Your task to perform on an android device: turn on location history Image 0: 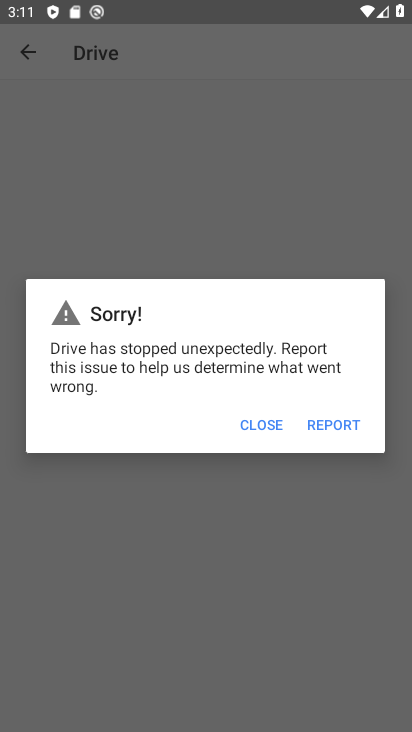
Step 0: press home button
Your task to perform on an android device: turn on location history Image 1: 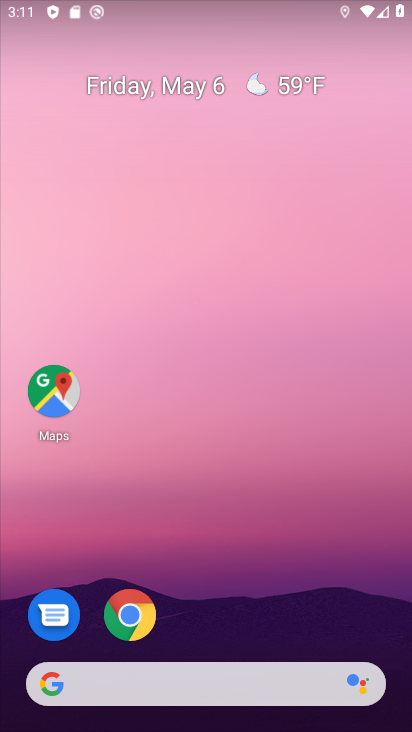
Step 1: click (45, 399)
Your task to perform on an android device: turn on location history Image 2: 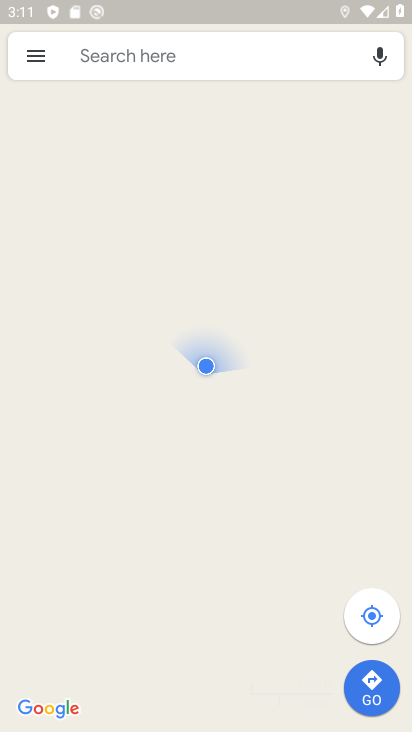
Step 2: click (30, 55)
Your task to perform on an android device: turn on location history Image 3: 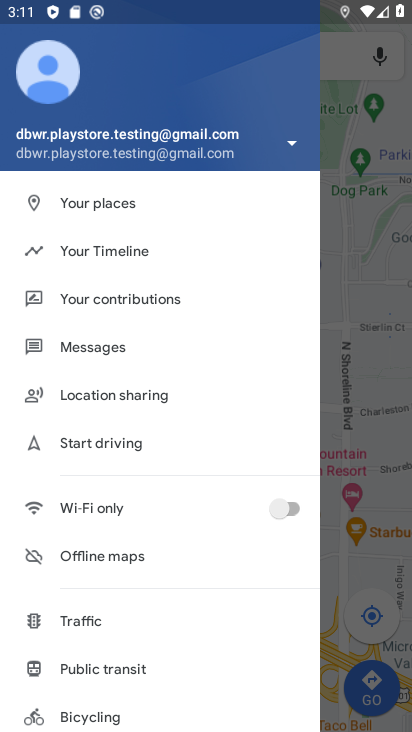
Step 3: click (94, 262)
Your task to perform on an android device: turn on location history Image 4: 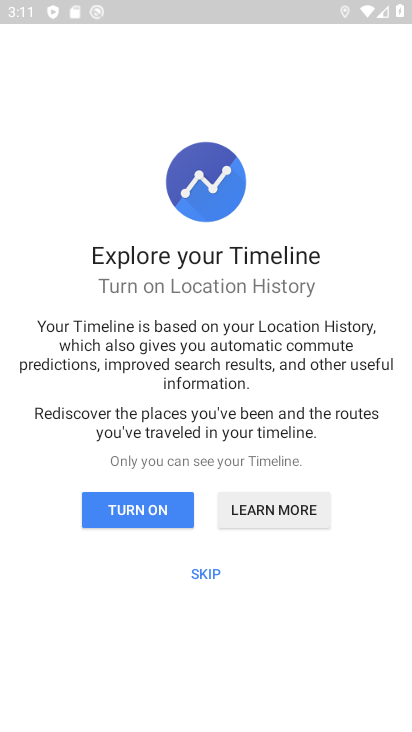
Step 4: click (200, 577)
Your task to perform on an android device: turn on location history Image 5: 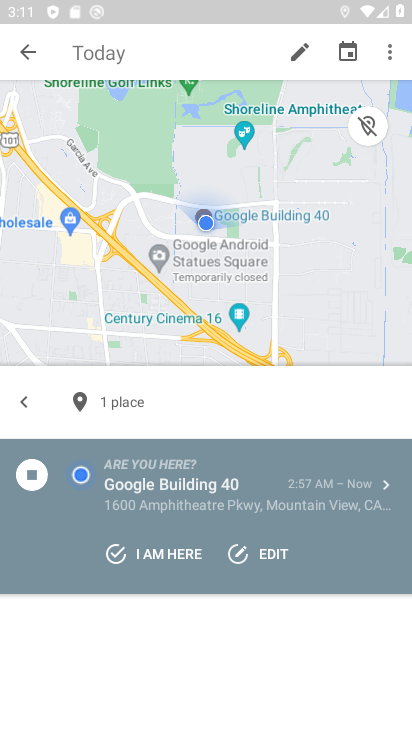
Step 5: click (393, 51)
Your task to perform on an android device: turn on location history Image 6: 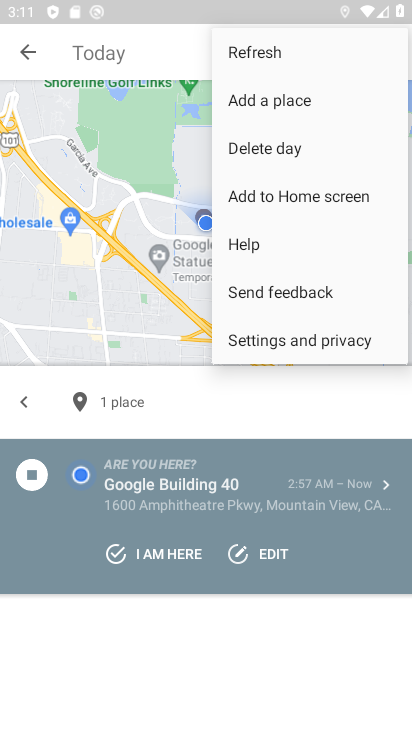
Step 6: click (273, 341)
Your task to perform on an android device: turn on location history Image 7: 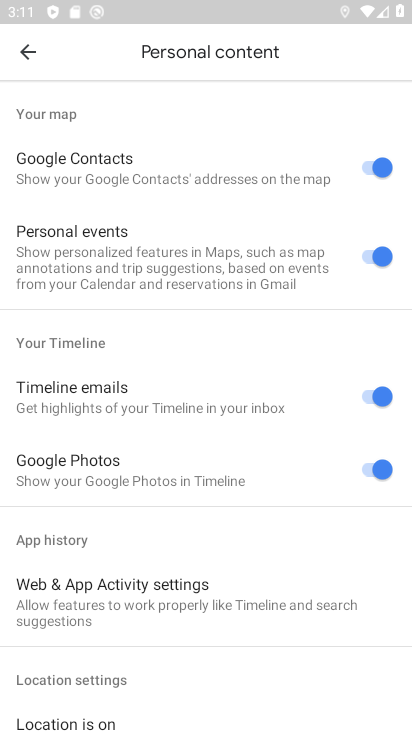
Step 7: drag from (187, 508) to (157, 108)
Your task to perform on an android device: turn on location history Image 8: 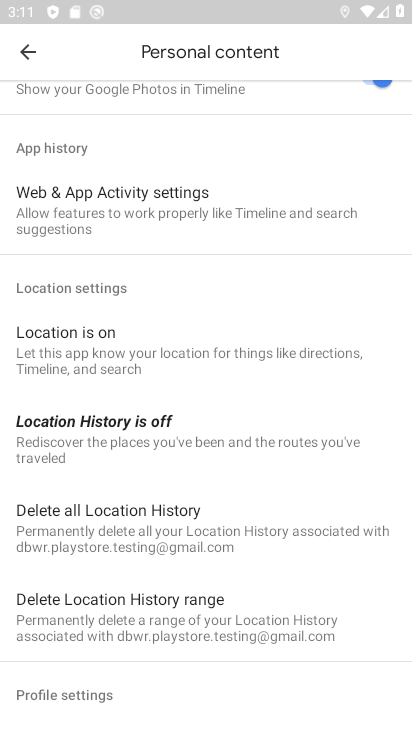
Step 8: click (76, 426)
Your task to perform on an android device: turn on location history Image 9: 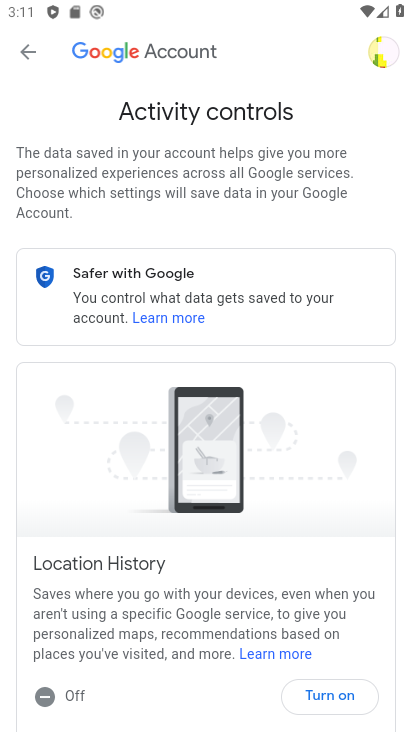
Step 9: click (347, 696)
Your task to perform on an android device: turn on location history Image 10: 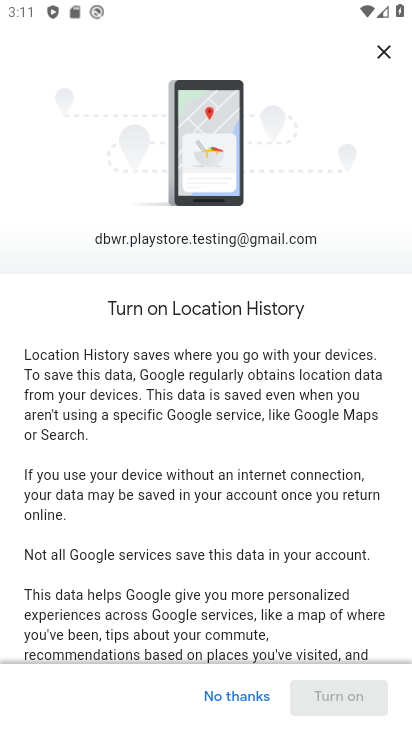
Step 10: drag from (211, 612) to (208, 66)
Your task to perform on an android device: turn on location history Image 11: 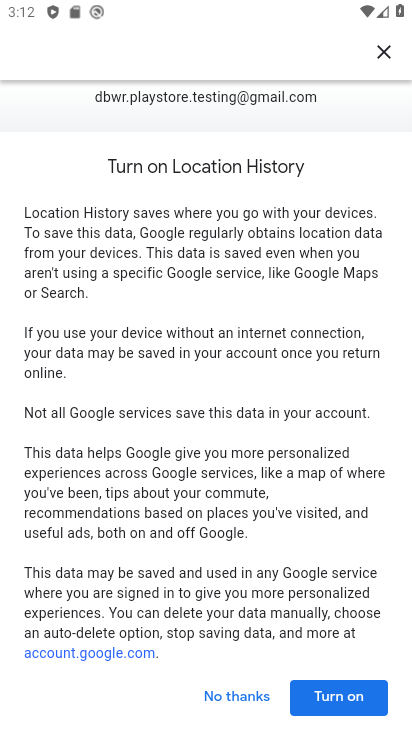
Step 11: click (332, 701)
Your task to perform on an android device: turn on location history Image 12: 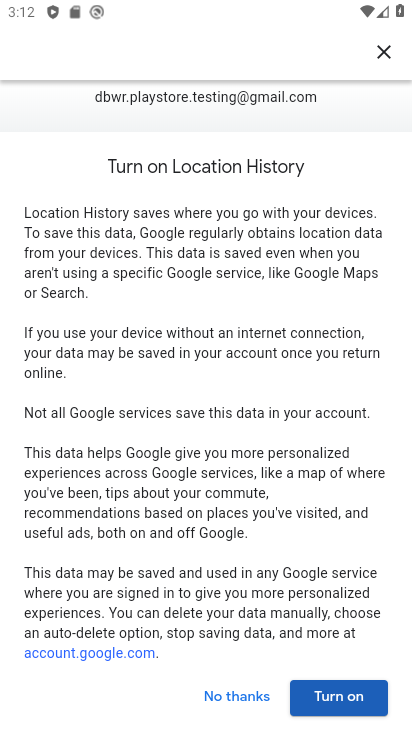
Step 12: click (357, 698)
Your task to perform on an android device: turn on location history Image 13: 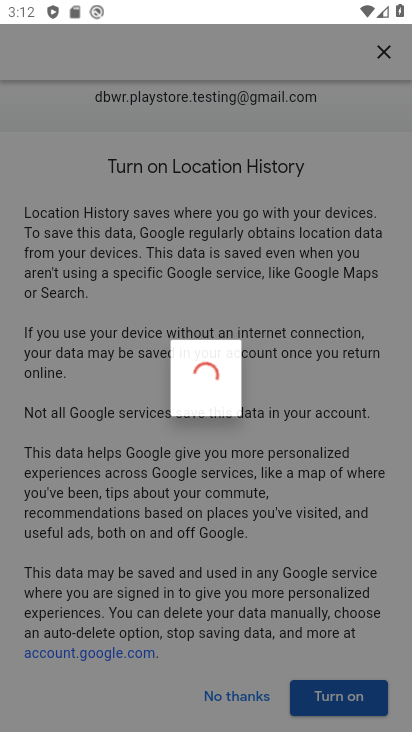
Step 13: drag from (223, 608) to (237, 377)
Your task to perform on an android device: turn on location history Image 14: 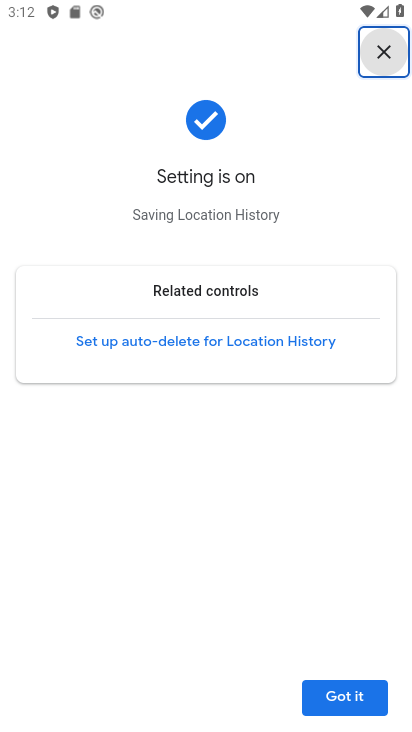
Step 14: click (360, 700)
Your task to perform on an android device: turn on location history Image 15: 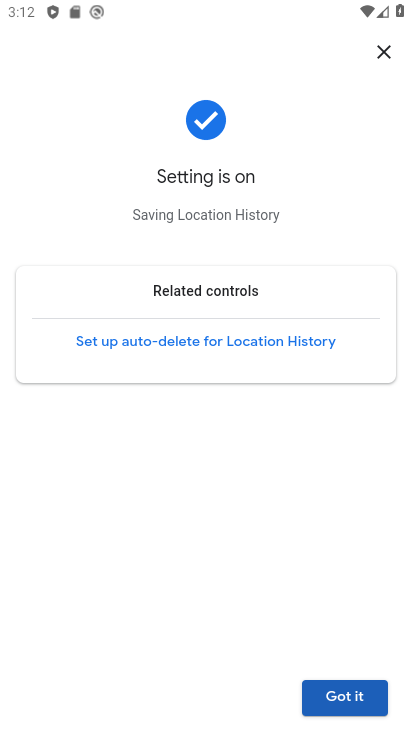
Step 15: click (288, 575)
Your task to perform on an android device: turn on location history Image 16: 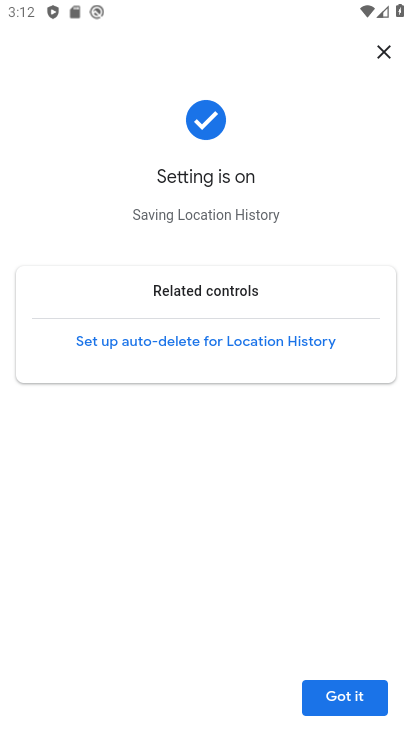
Step 16: click (325, 695)
Your task to perform on an android device: turn on location history Image 17: 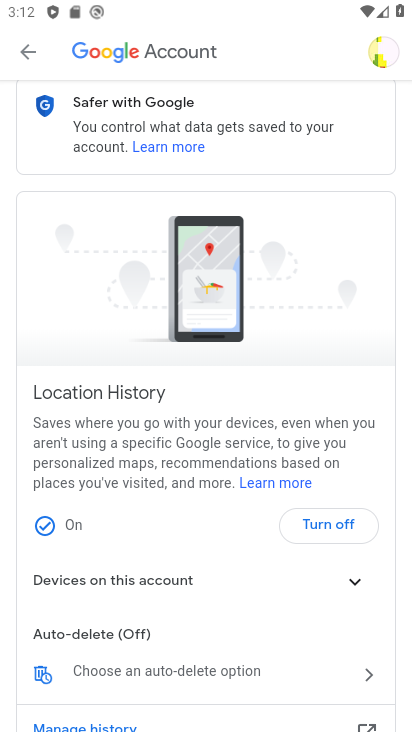
Step 17: task complete